Your task to perform on an android device: Open the stopwatch Image 0: 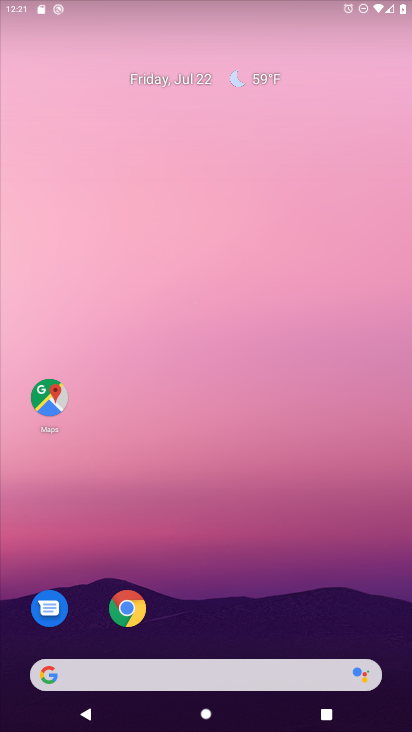
Step 0: drag from (323, 588) to (116, 47)
Your task to perform on an android device: Open the stopwatch Image 1: 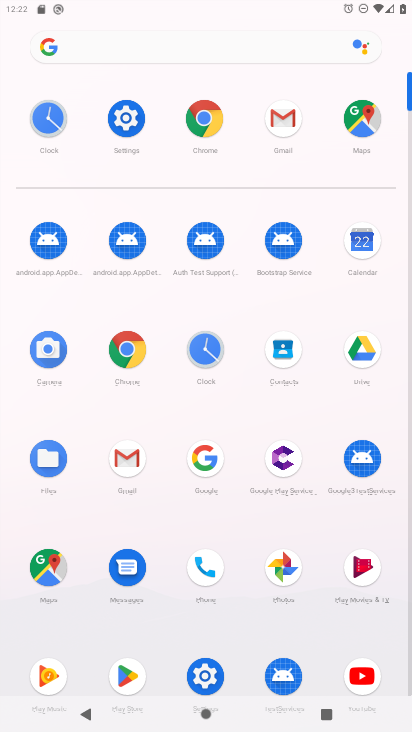
Step 1: click (196, 363)
Your task to perform on an android device: Open the stopwatch Image 2: 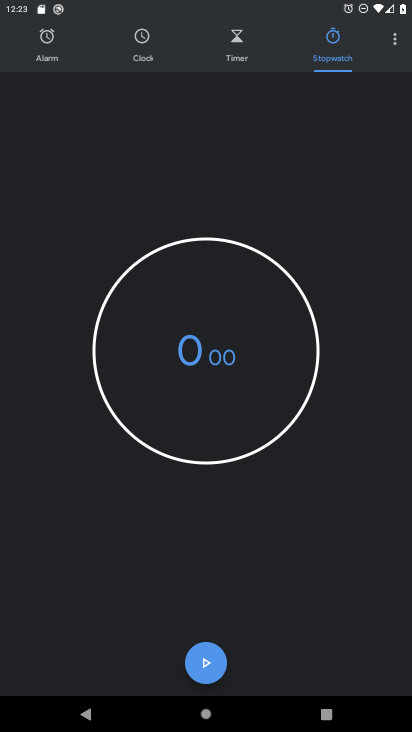
Step 2: task complete